Your task to perform on an android device: Open Chrome and go to settings Image 0: 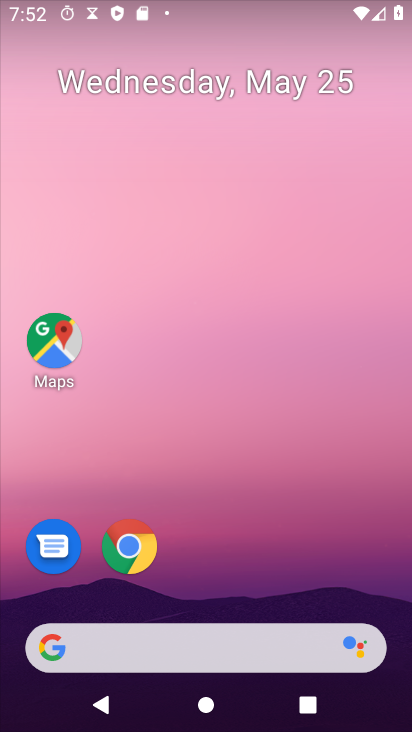
Step 0: click (116, 547)
Your task to perform on an android device: Open Chrome and go to settings Image 1: 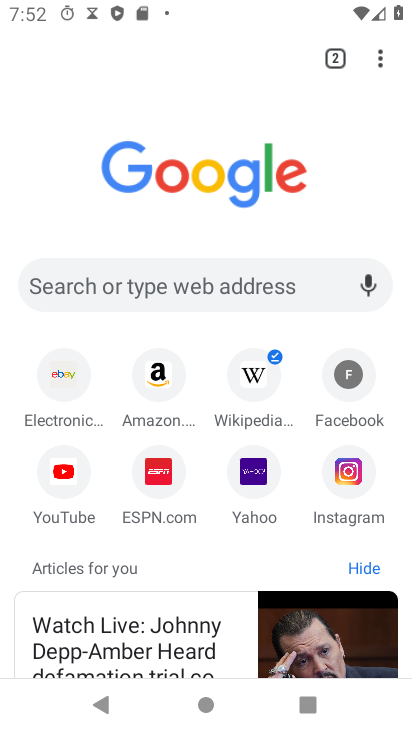
Step 1: click (382, 68)
Your task to perform on an android device: Open Chrome and go to settings Image 2: 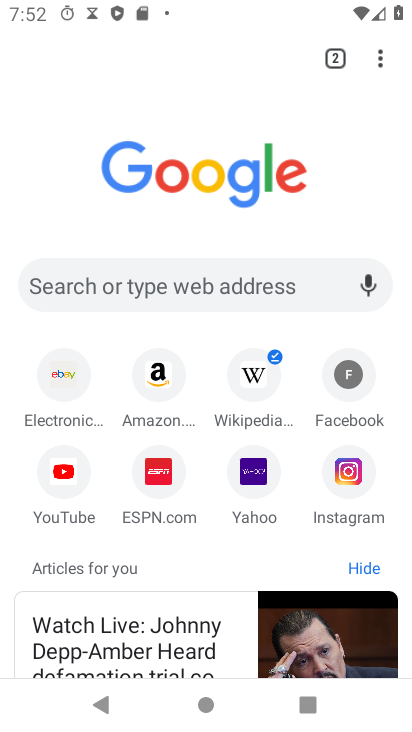
Step 2: click (384, 64)
Your task to perform on an android device: Open Chrome and go to settings Image 3: 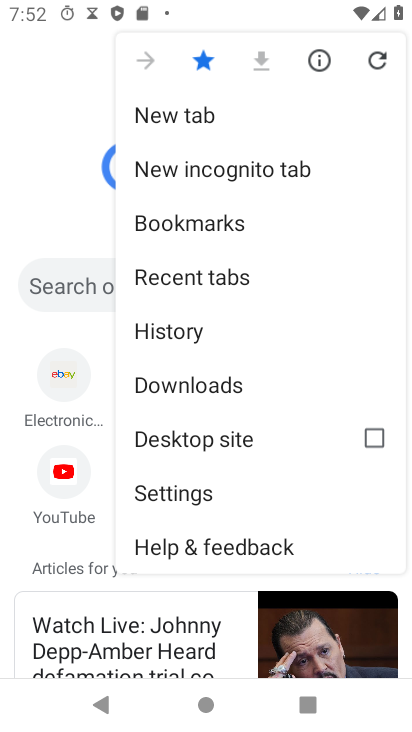
Step 3: click (188, 498)
Your task to perform on an android device: Open Chrome and go to settings Image 4: 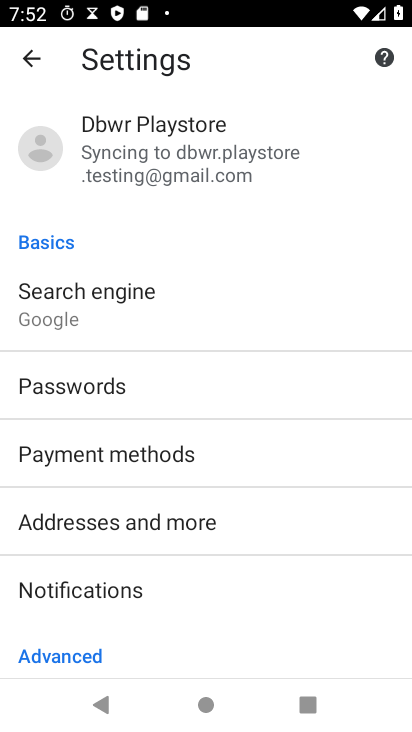
Step 4: task complete